Your task to perform on an android device: turn pop-ups on in chrome Image 0: 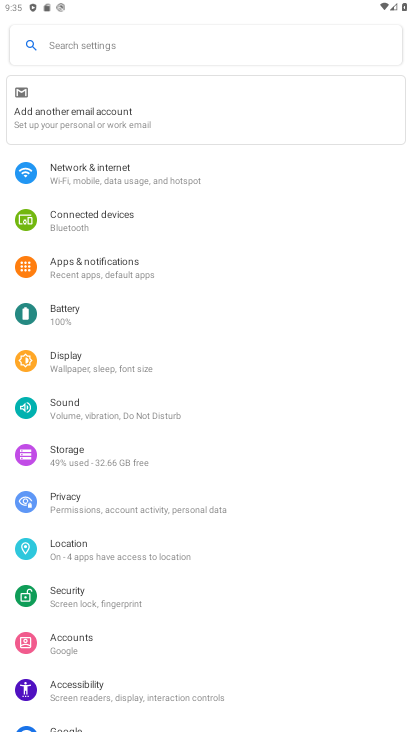
Step 0: press home button
Your task to perform on an android device: turn pop-ups on in chrome Image 1: 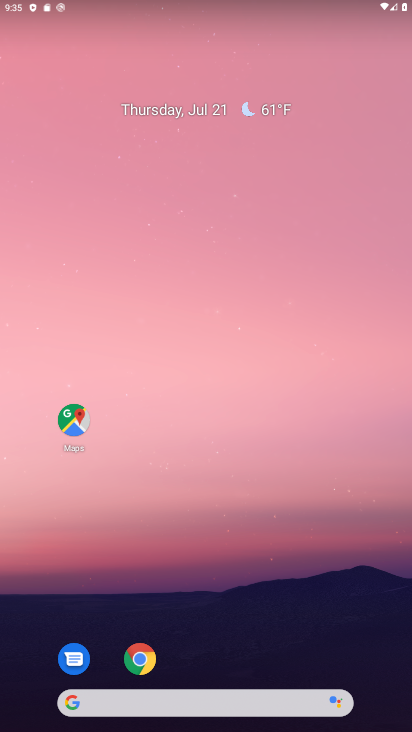
Step 1: click (125, 655)
Your task to perform on an android device: turn pop-ups on in chrome Image 2: 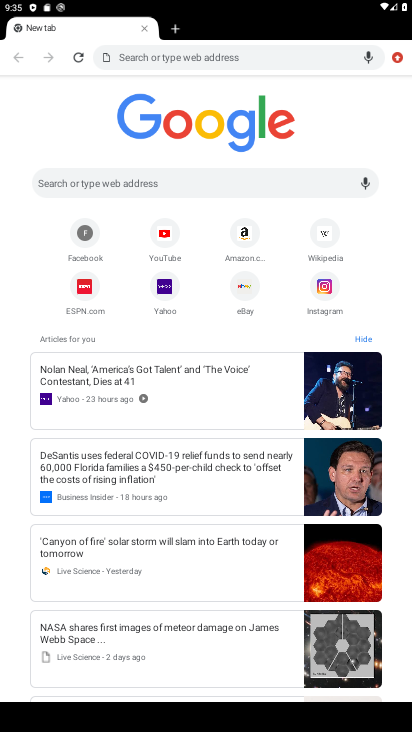
Step 2: click (391, 58)
Your task to perform on an android device: turn pop-ups on in chrome Image 3: 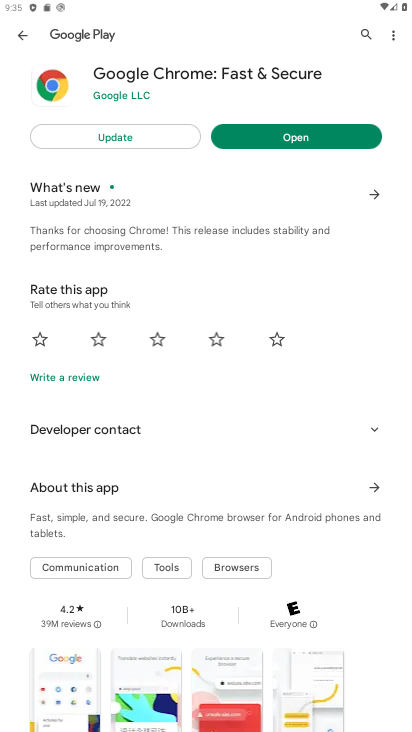
Step 3: click (302, 127)
Your task to perform on an android device: turn pop-ups on in chrome Image 4: 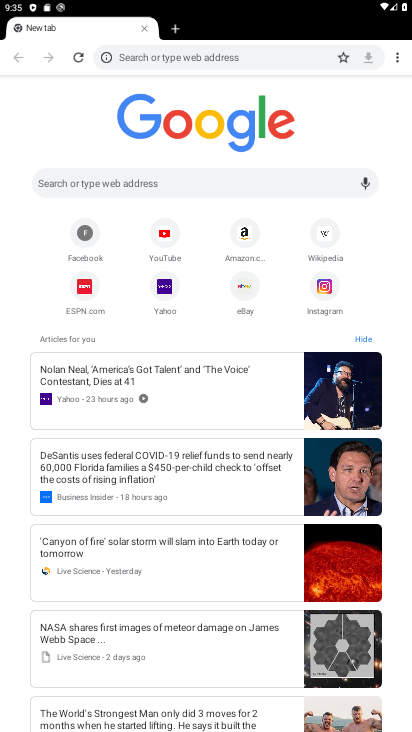
Step 4: click (394, 56)
Your task to perform on an android device: turn pop-ups on in chrome Image 5: 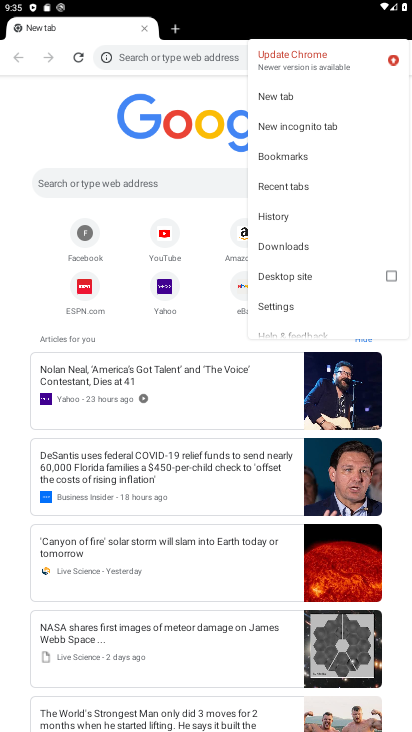
Step 5: click (262, 301)
Your task to perform on an android device: turn pop-ups on in chrome Image 6: 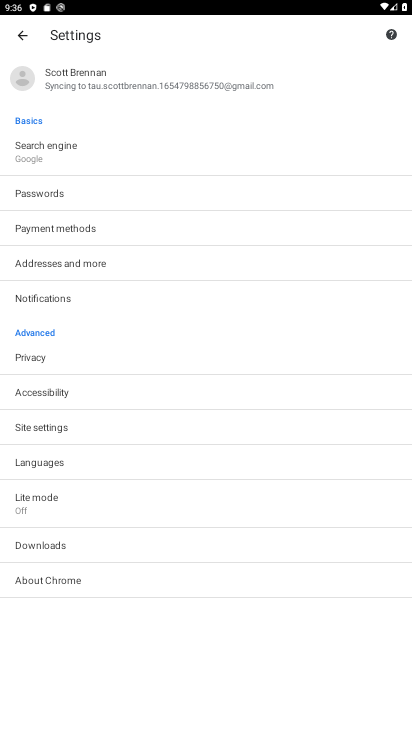
Step 6: click (46, 431)
Your task to perform on an android device: turn pop-ups on in chrome Image 7: 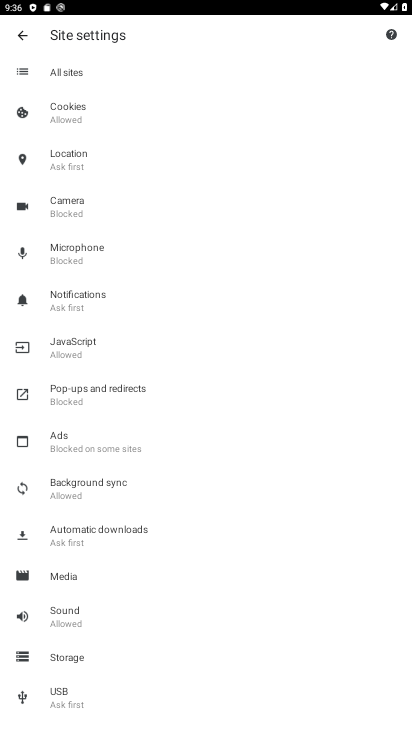
Step 7: click (112, 405)
Your task to perform on an android device: turn pop-ups on in chrome Image 8: 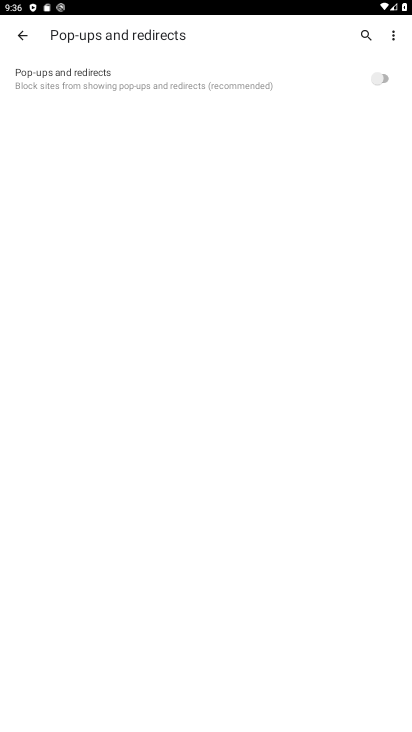
Step 8: click (386, 75)
Your task to perform on an android device: turn pop-ups on in chrome Image 9: 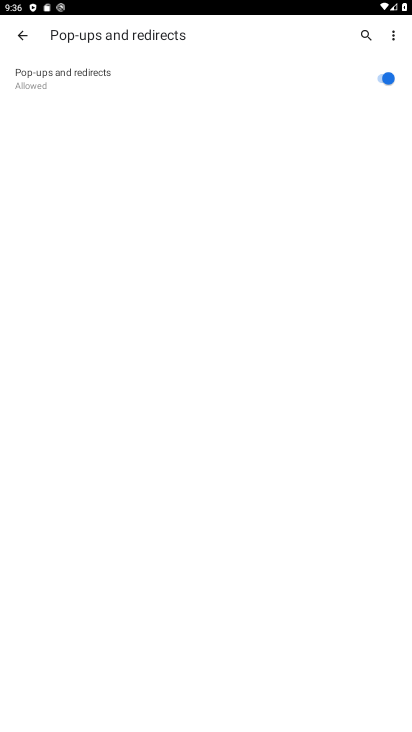
Step 9: task complete